Your task to perform on an android device: What is the speed of a tiger? Image 0: 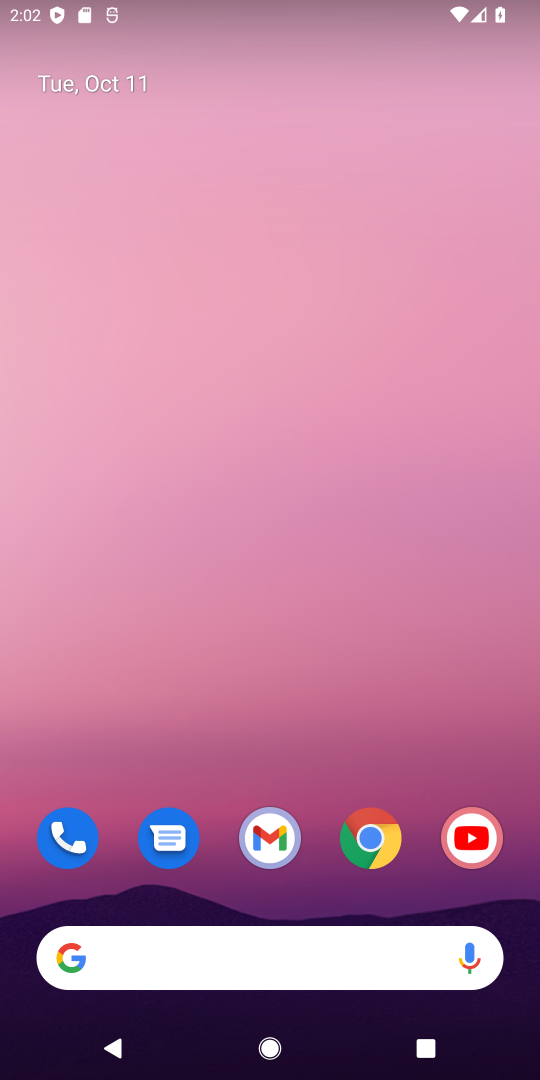
Step 0: click (380, 838)
Your task to perform on an android device: What is the speed of a tiger? Image 1: 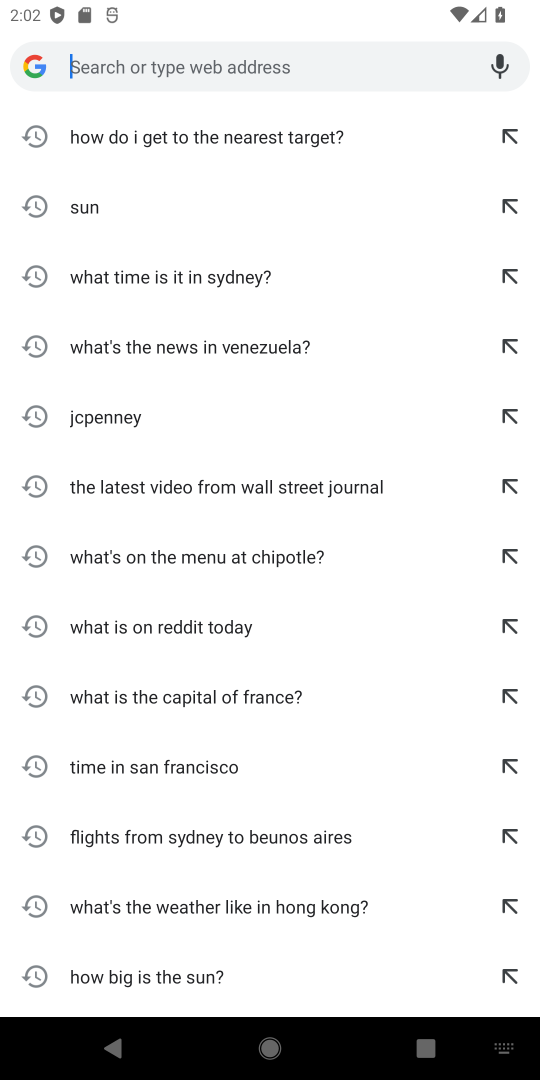
Step 1: type "what is the speed of tiger"
Your task to perform on an android device: What is the speed of a tiger? Image 2: 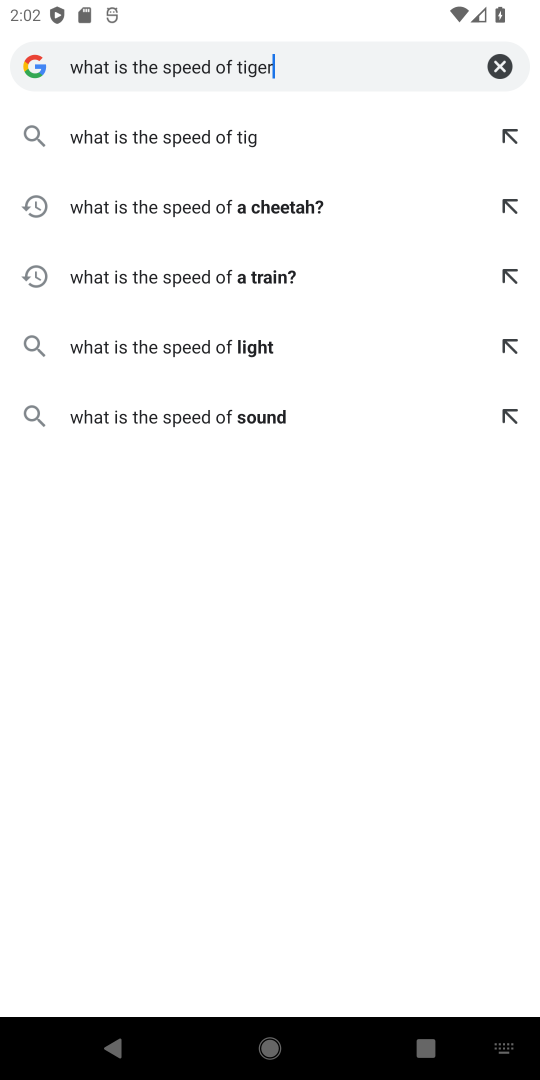
Step 2: type ""
Your task to perform on an android device: What is the speed of a tiger? Image 3: 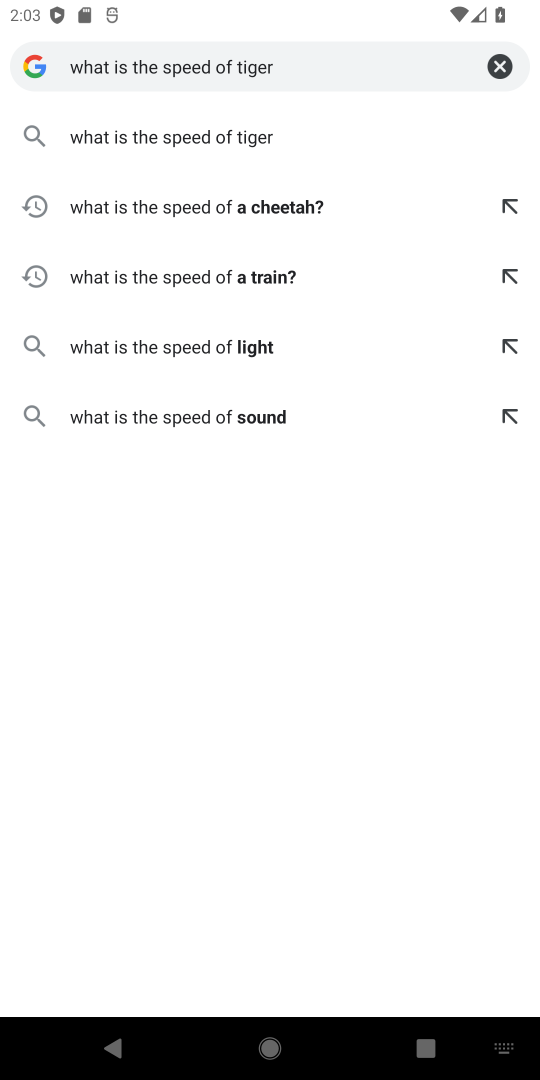
Step 3: click (232, 138)
Your task to perform on an android device: What is the speed of a tiger? Image 4: 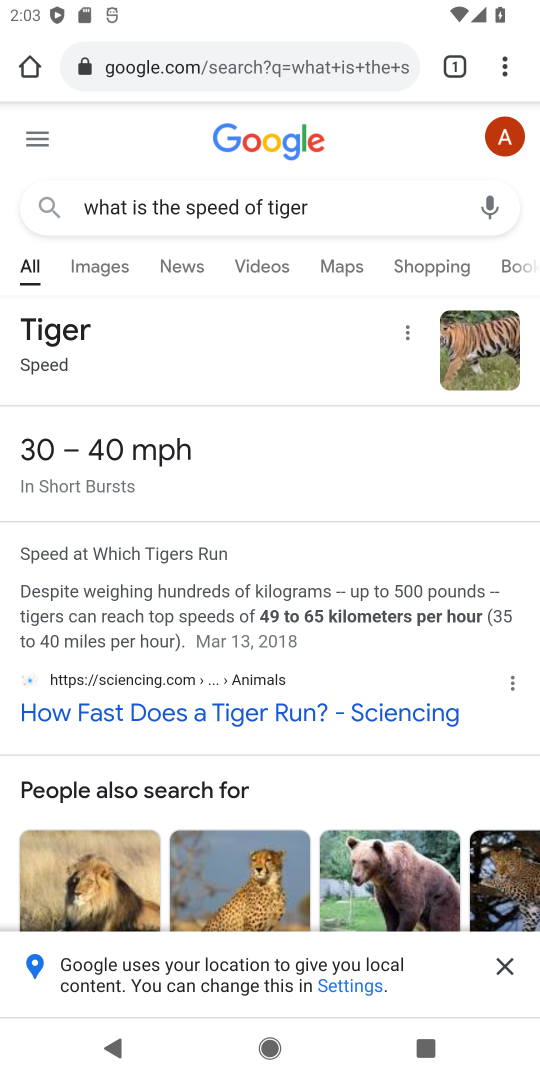
Step 4: drag from (156, 624) to (204, 303)
Your task to perform on an android device: What is the speed of a tiger? Image 5: 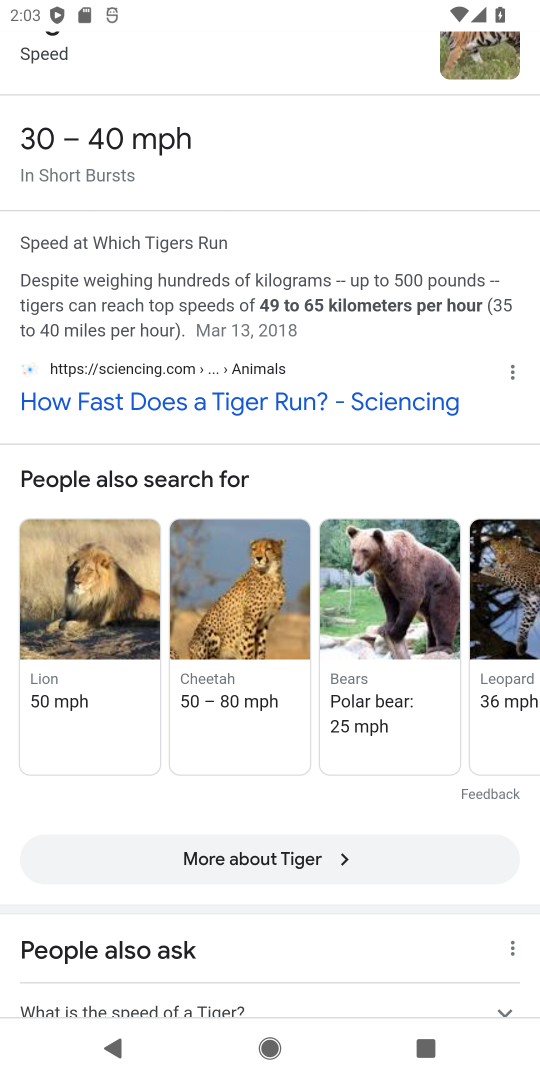
Step 5: click (90, 398)
Your task to perform on an android device: What is the speed of a tiger? Image 6: 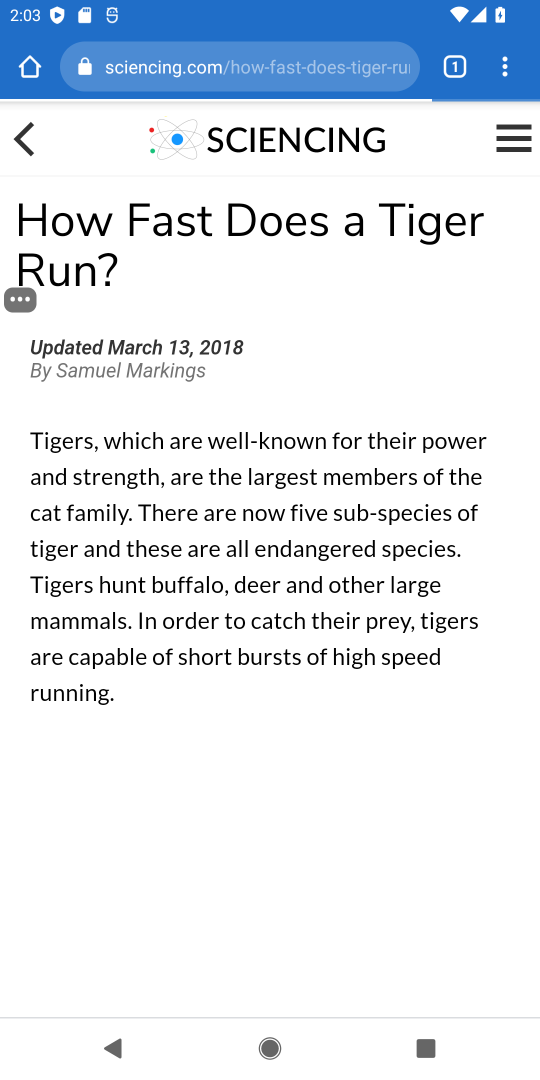
Step 6: drag from (204, 812) to (294, 315)
Your task to perform on an android device: What is the speed of a tiger? Image 7: 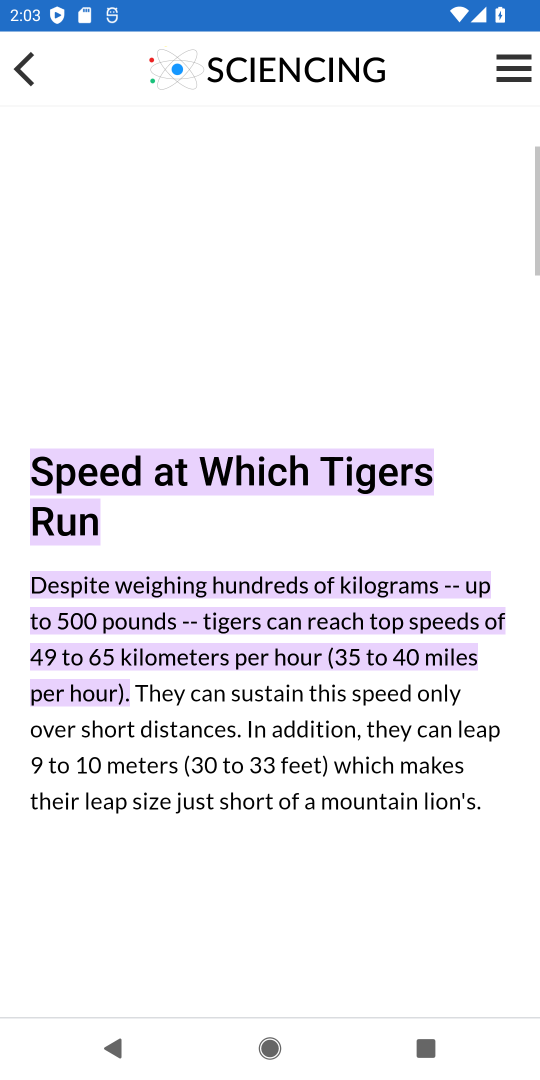
Step 7: drag from (251, 894) to (316, 524)
Your task to perform on an android device: What is the speed of a tiger? Image 8: 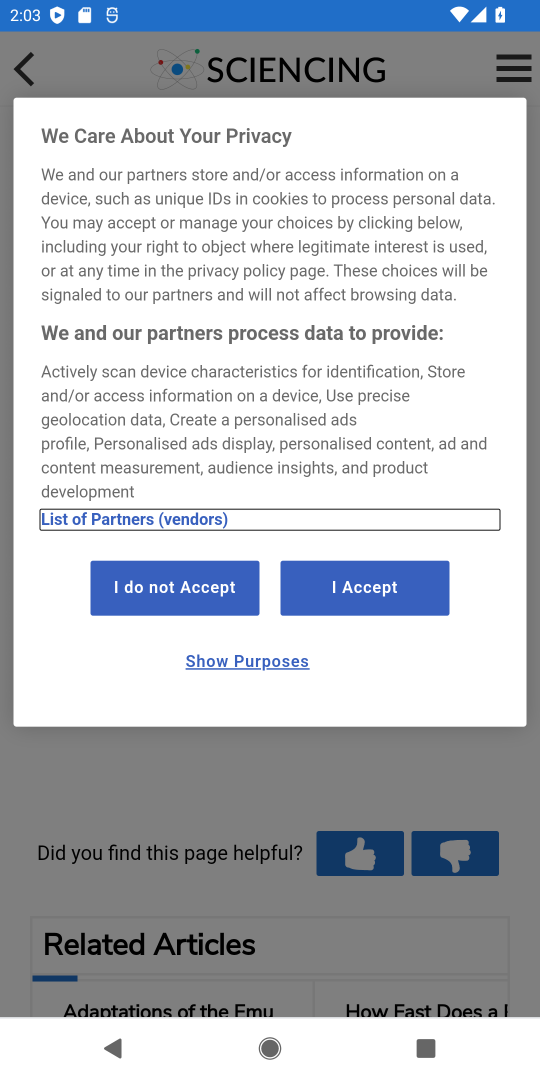
Step 8: click (339, 591)
Your task to perform on an android device: What is the speed of a tiger? Image 9: 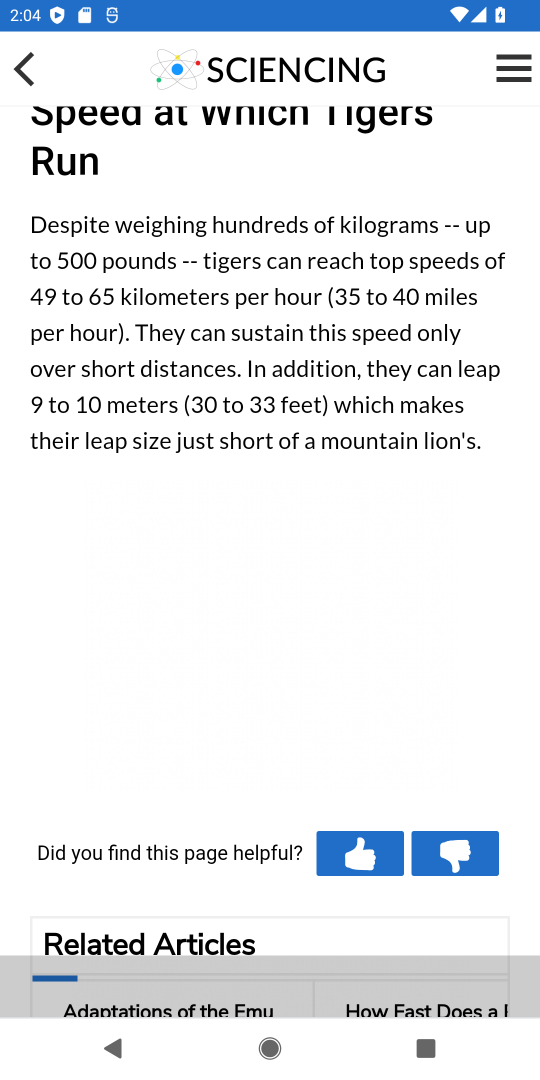
Step 9: task complete